Your task to perform on an android device: toggle location history Image 0: 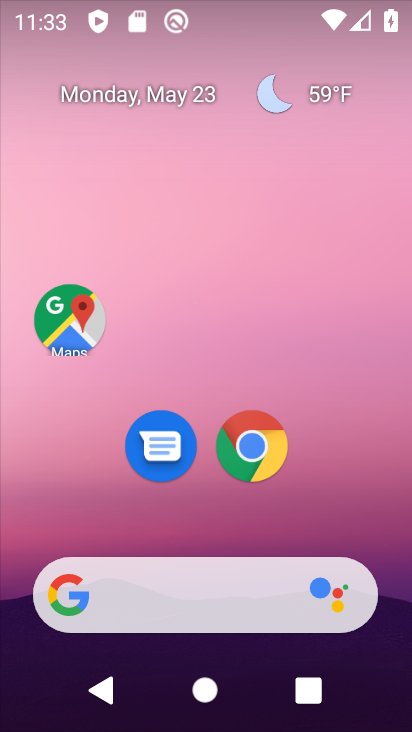
Step 0: drag from (237, 557) to (273, 24)
Your task to perform on an android device: toggle location history Image 1: 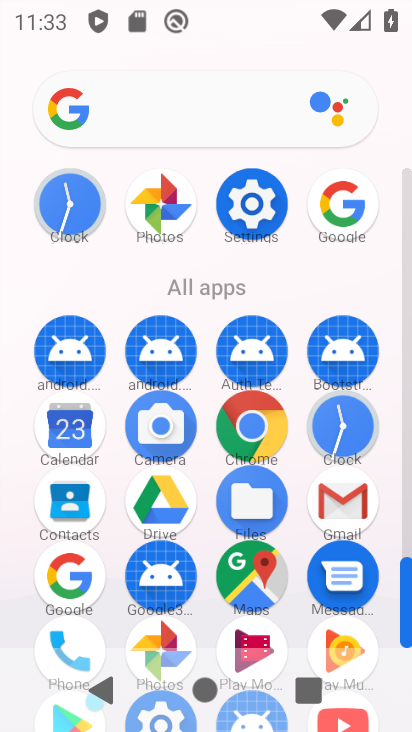
Step 1: click (260, 198)
Your task to perform on an android device: toggle location history Image 2: 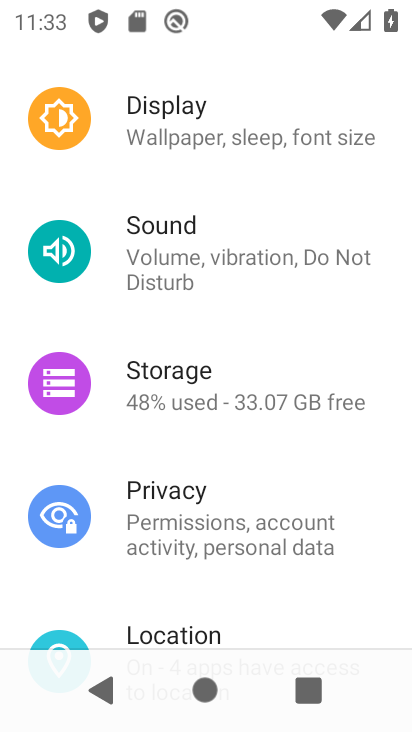
Step 2: click (190, 630)
Your task to perform on an android device: toggle location history Image 3: 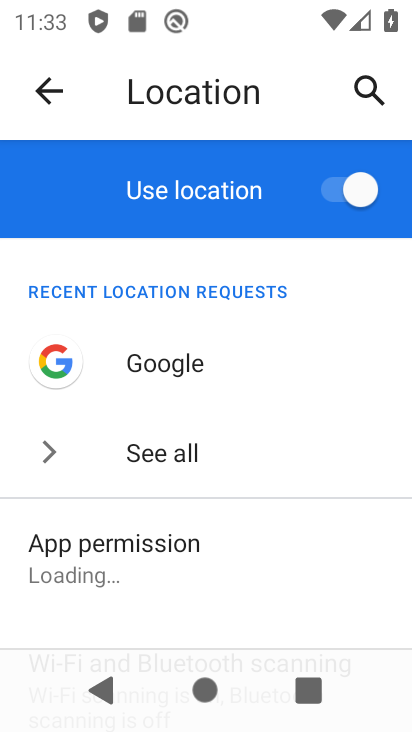
Step 3: drag from (195, 612) to (253, 96)
Your task to perform on an android device: toggle location history Image 4: 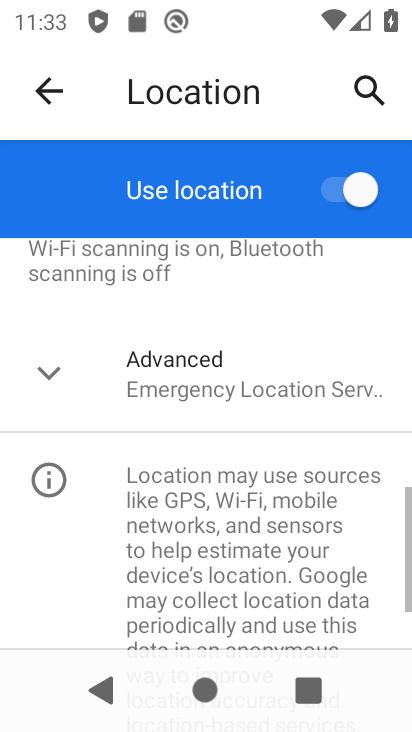
Step 4: click (219, 375)
Your task to perform on an android device: toggle location history Image 5: 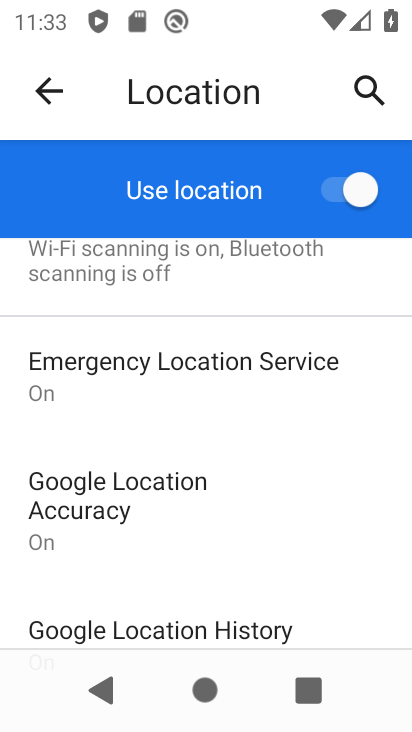
Step 5: drag from (270, 590) to (287, 297)
Your task to perform on an android device: toggle location history Image 6: 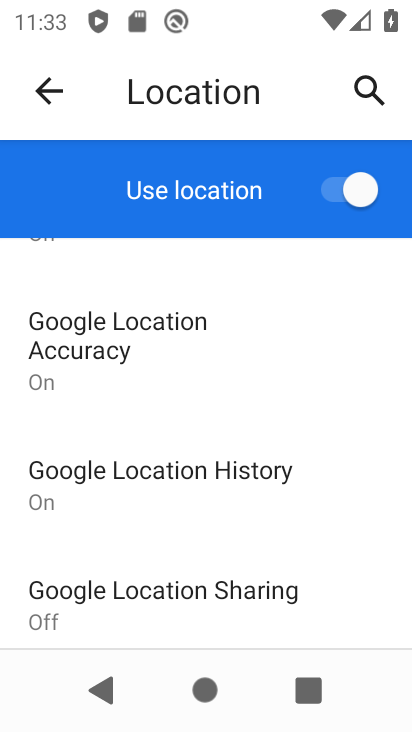
Step 6: click (245, 470)
Your task to perform on an android device: toggle location history Image 7: 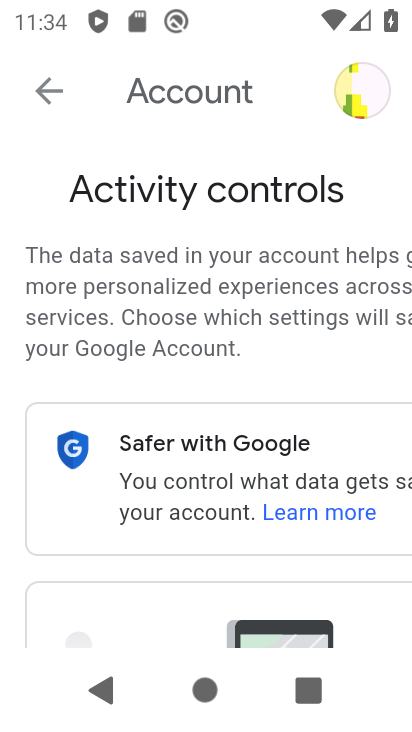
Step 7: press home button
Your task to perform on an android device: toggle location history Image 8: 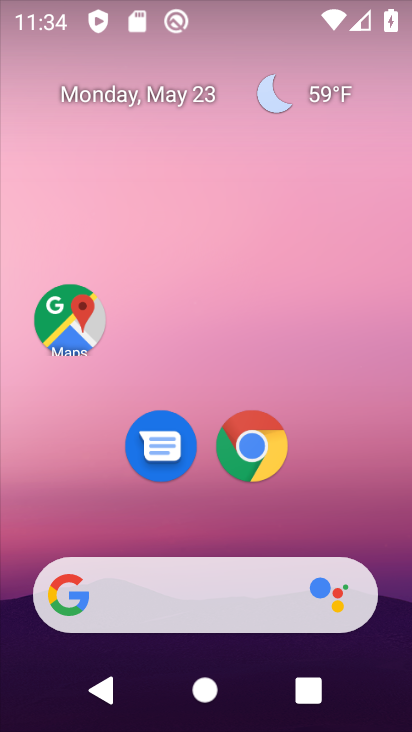
Step 8: drag from (186, 545) to (272, 34)
Your task to perform on an android device: toggle location history Image 9: 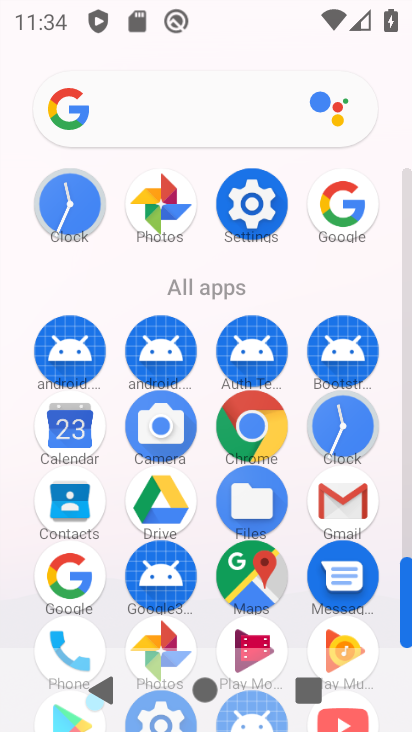
Step 9: click (253, 210)
Your task to perform on an android device: toggle location history Image 10: 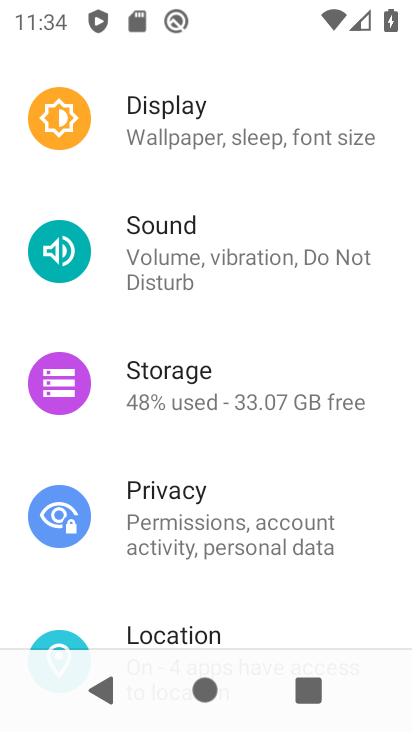
Step 10: drag from (231, 581) to (247, 161)
Your task to perform on an android device: toggle location history Image 11: 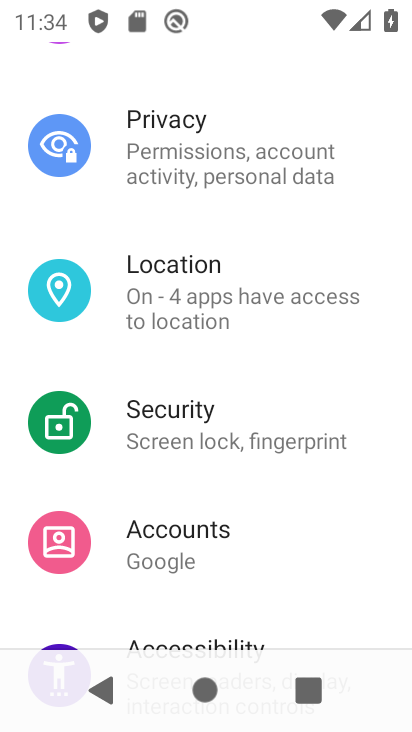
Step 11: click (215, 303)
Your task to perform on an android device: toggle location history Image 12: 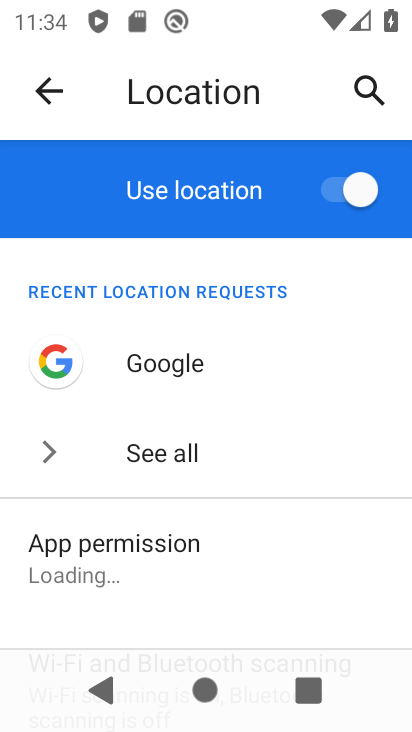
Step 12: drag from (190, 570) to (134, 239)
Your task to perform on an android device: toggle location history Image 13: 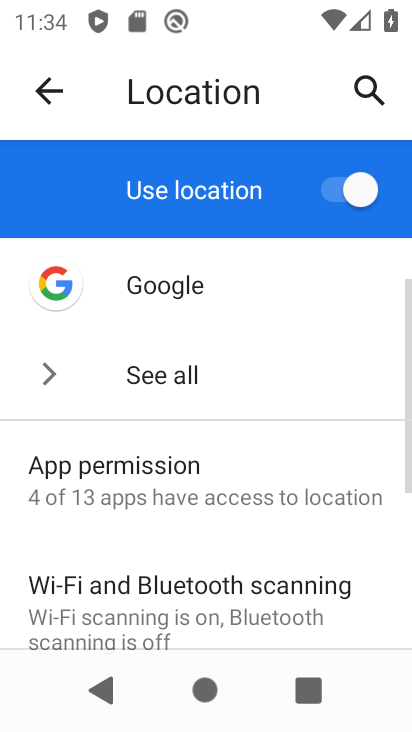
Step 13: drag from (173, 616) to (189, 355)
Your task to perform on an android device: toggle location history Image 14: 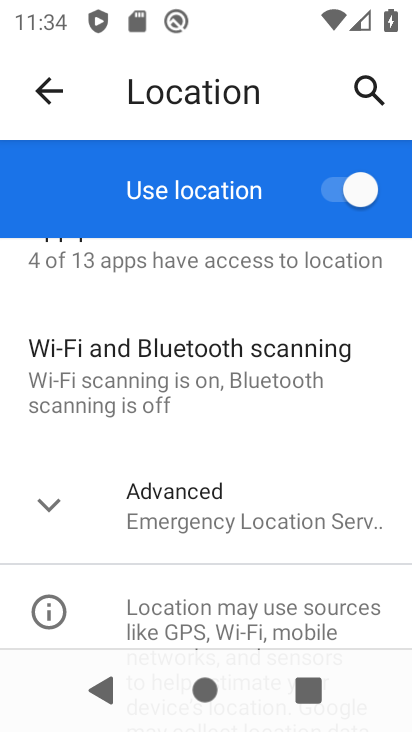
Step 14: click (190, 512)
Your task to perform on an android device: toggle location history Image 15: 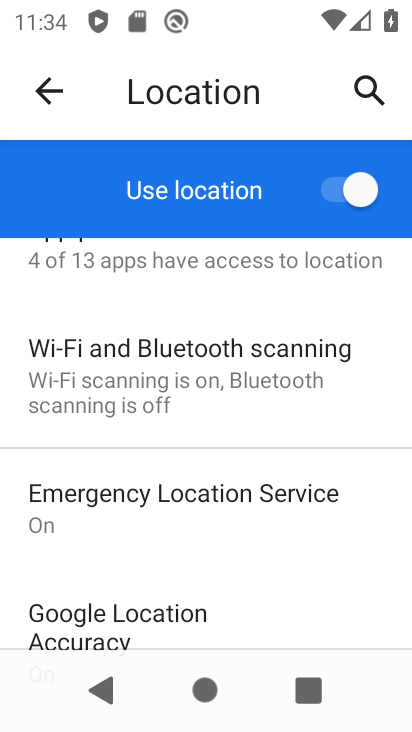
Step 15: drag from (197, 601) to (203, 268)
Your task to perform on an android device: toggle location history Image 16: 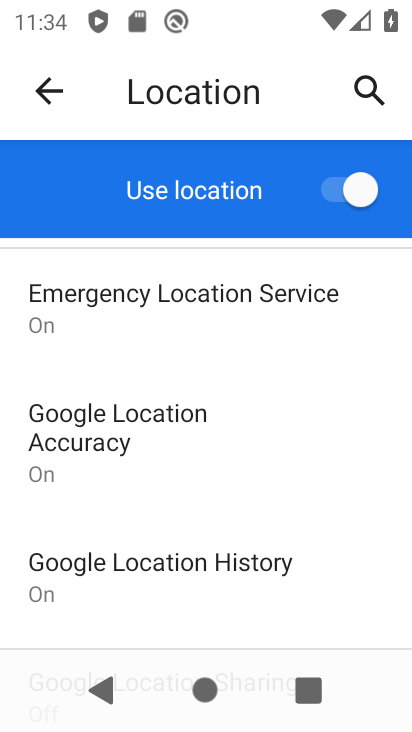
Step 16: click (174, 566)
Your task to perform on an android device: toggle location history Image 17: 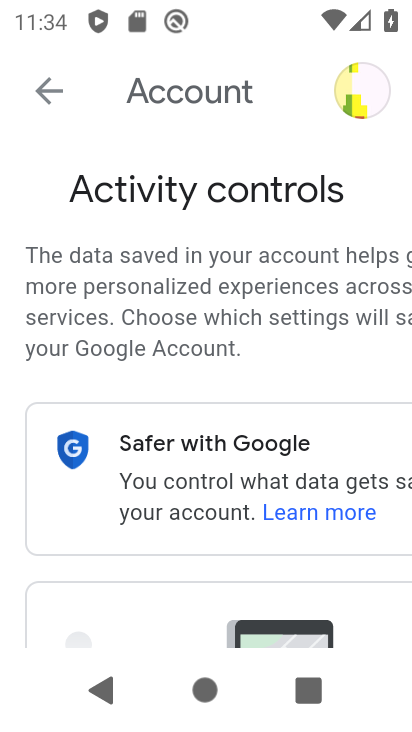
Step 17: drag from (320, 590) to (306, 154)
Your task to perform on an android device: toggle location history Image 18: 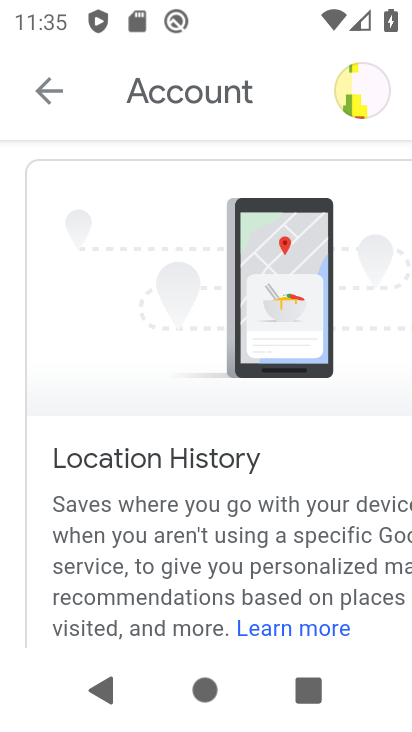
Step 18: drag from (199, 567) to (266, 181)
Your task to perform on an android device: toggle location history Image 19: 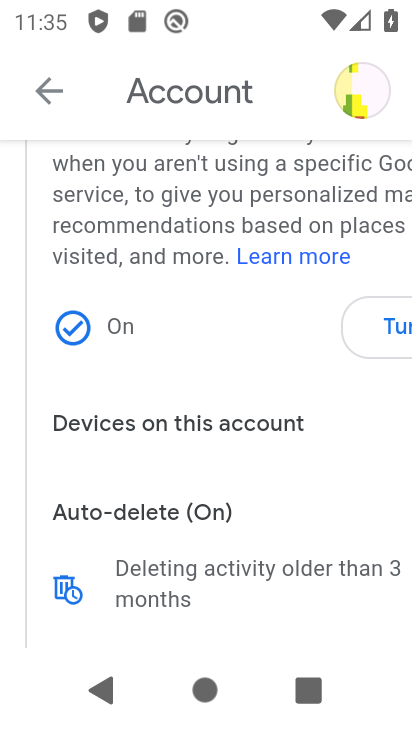
Step 19: click (378, 330)
Your task to perform on an android device: toggle location history Image 20: 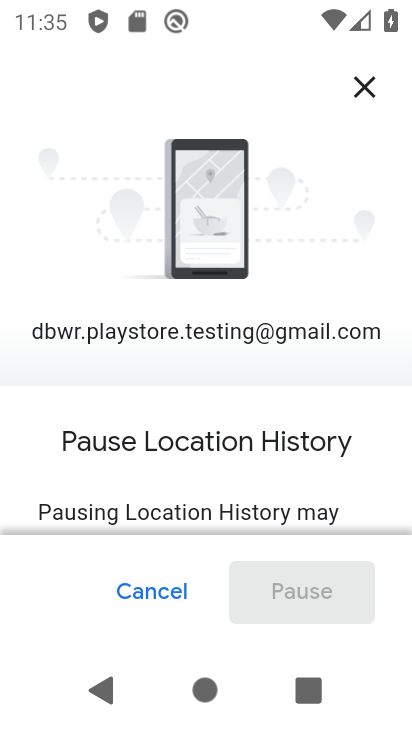
Step 20: drag from (332, 519) to (313, 91)
Your task to perform on an android device: toggle location history Image 21: 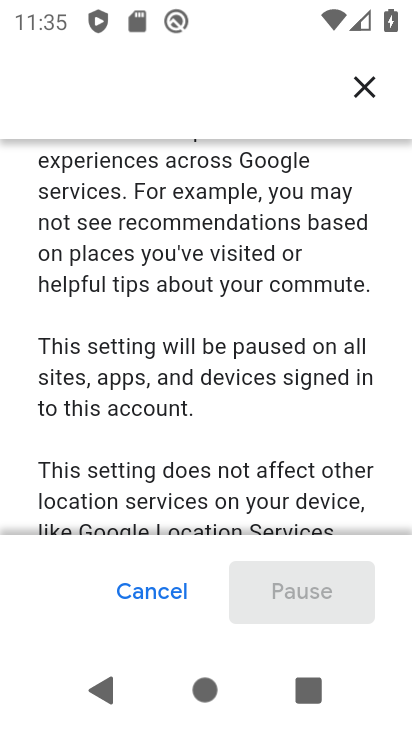
Step 21: drag from (322, 460) to (349, 71)
Your task to perform on an android device: toggle location history Image 22: 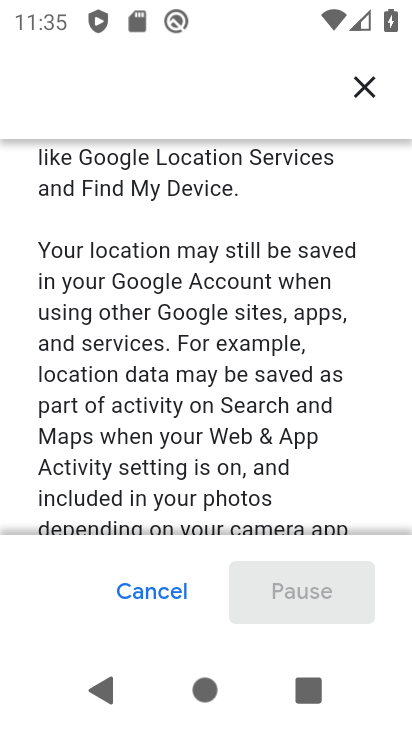
Step 22: drag from (261, 509) to (268, 194)
Your task to perform on an android device: toggle location history Image 23: 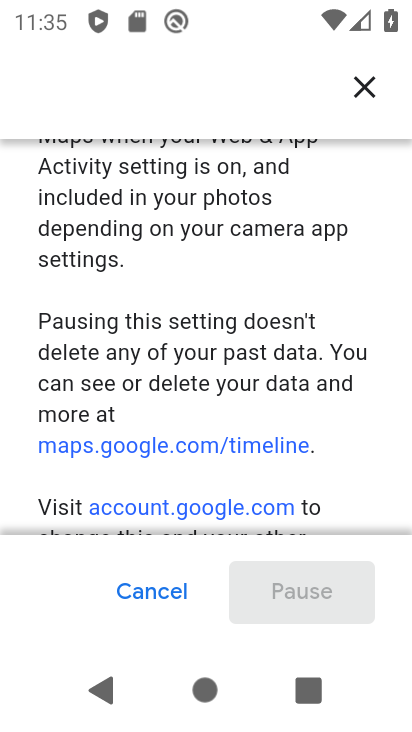
Step 23: drag from (276, 505) to (297, 209)
Your task to perform on an android device: toggle location history Image 24: 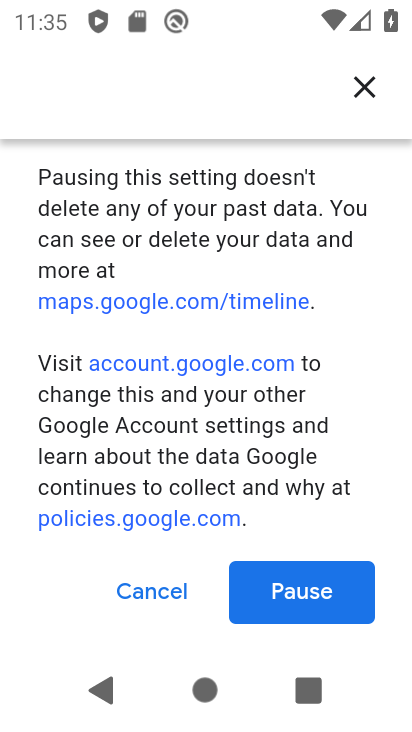
Step 24: click (314, 582)
Your task to perform on an android device: toggle location history Image 25: 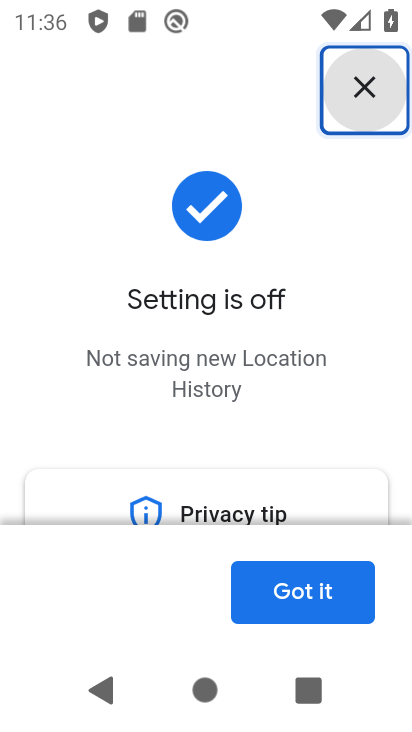
Step 25: click (341, 596)
Your task to perform on an android device: toggle location history Image 26: 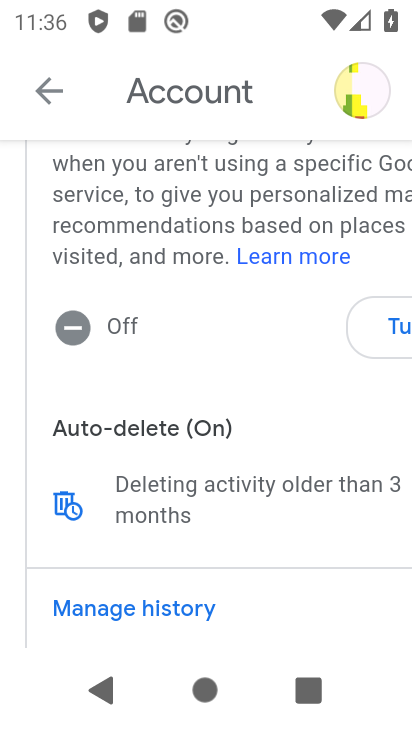
Step 26: task complete